Your task to perform on an android device: change text size in settings app Image 0: 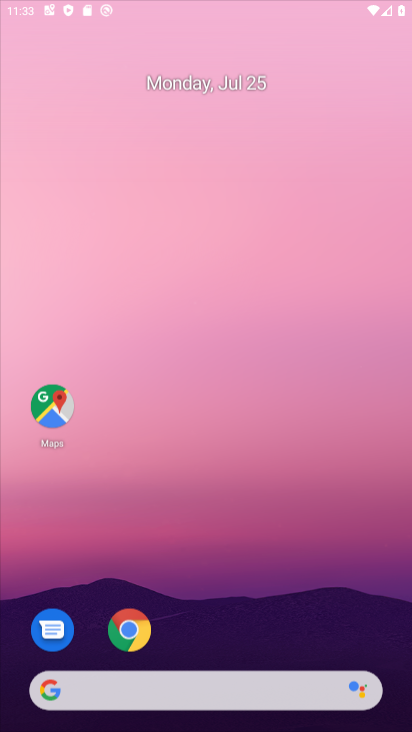
Step 0: press home button
Your task to perform on an android device: change text size in settings app Image 1: 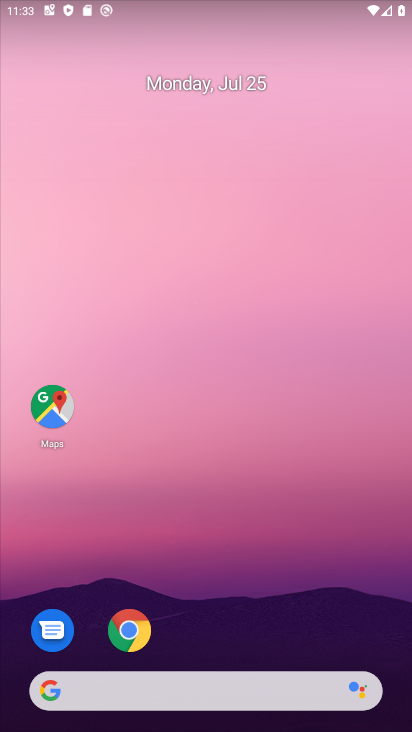
Step 1: drag from (328, 604) to (348, 124)
Your task to perform on an android device: change text size in settings app Image 2: 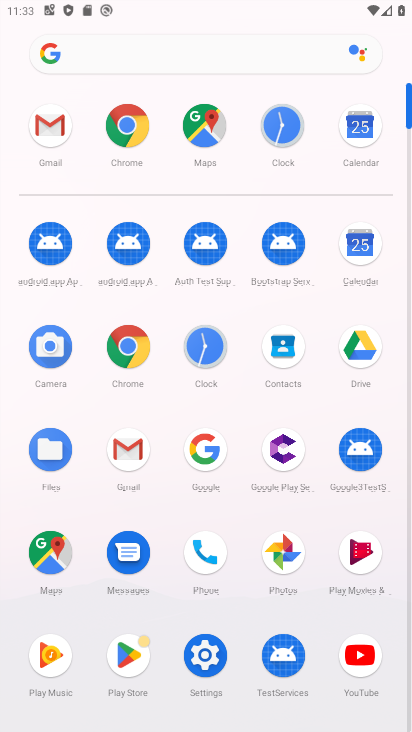
Step 2: click (199, 667)
Your task to perform on an android device: change text size in settings app Image 3: 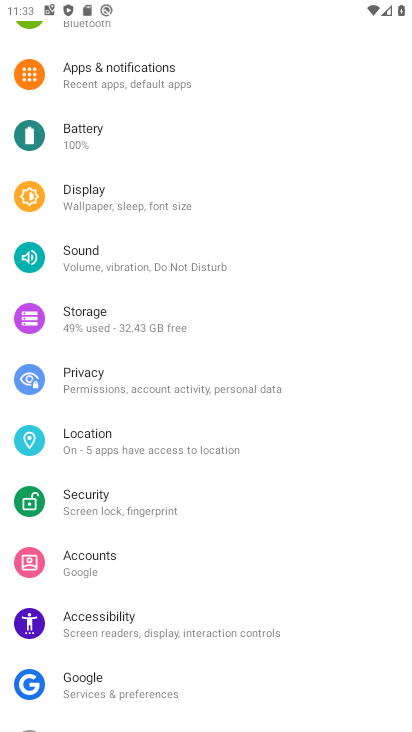
Step 3: drag from (323, 502) to (341, 420)
Your task to perform on an android device: change text size in settings app Image 4: 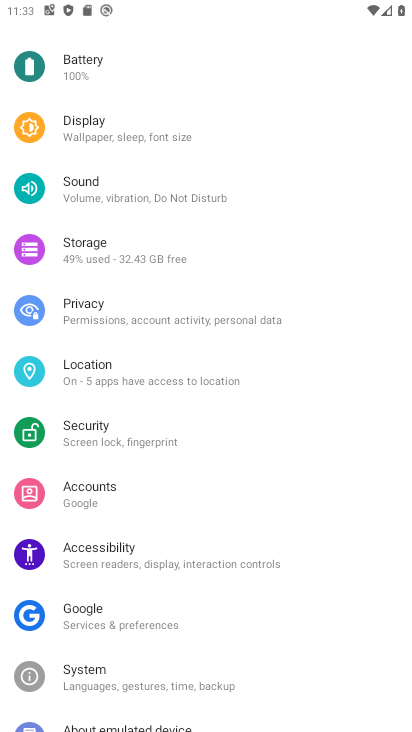
Step 4: drag from (346, 491) to (356, 378)
Your task to perform on an android device: change text size in settings app Image 5: 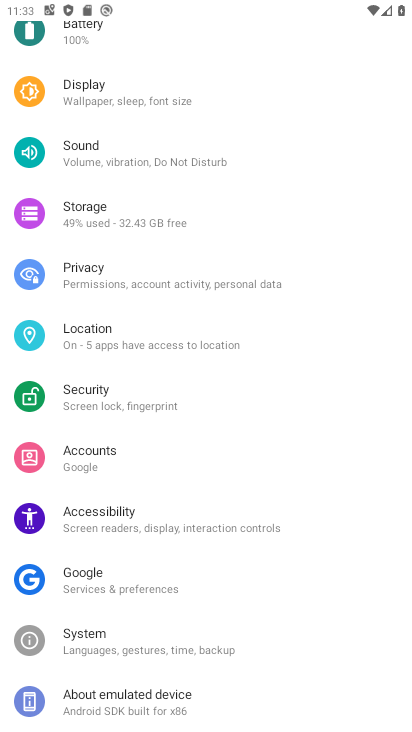
Step 5: drag from (347, 302) to (338, 373)
Your task to perform on an android device: change text size in settings app Image 6: 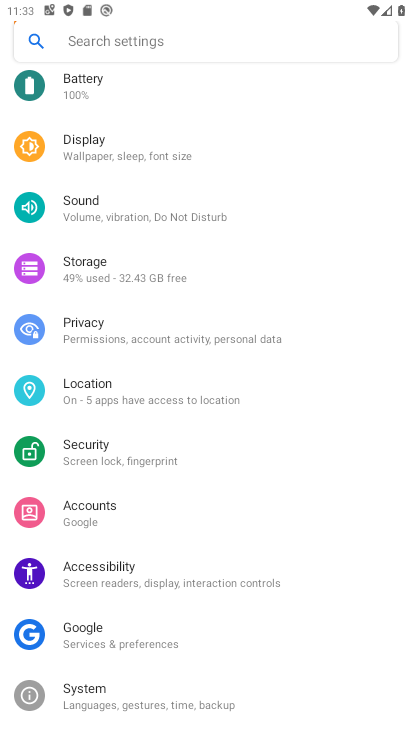
Step 6: drag from (332, 249) to (324, 351)
Your task to perform on an android device: change text size in settings app Image 7: 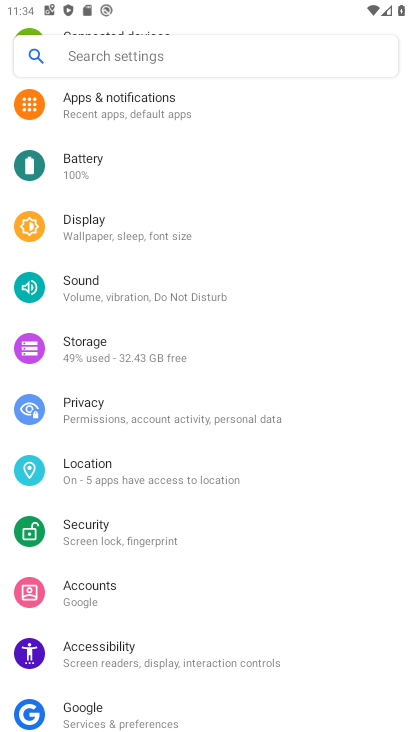
Step 7: drag from (325, 181) to (319, 353)
Your task to perform on an android device: change text size in settings app Image 8: 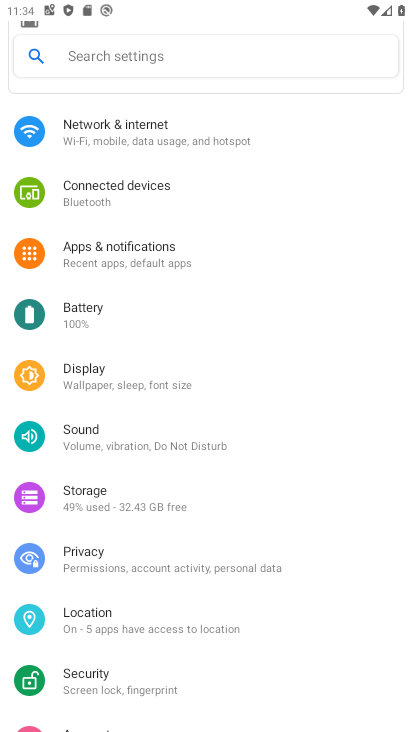
Step 8: drag from (333, 205) to (324, 451)
Your task to perform on an android device: change text size in settings app Image 9: 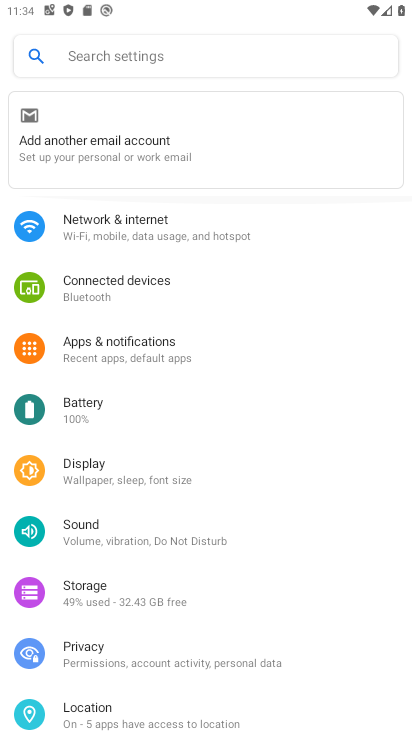
Step 9: click (263, 475)
Your task to perform on an android device: change text size in settings app Image 10: 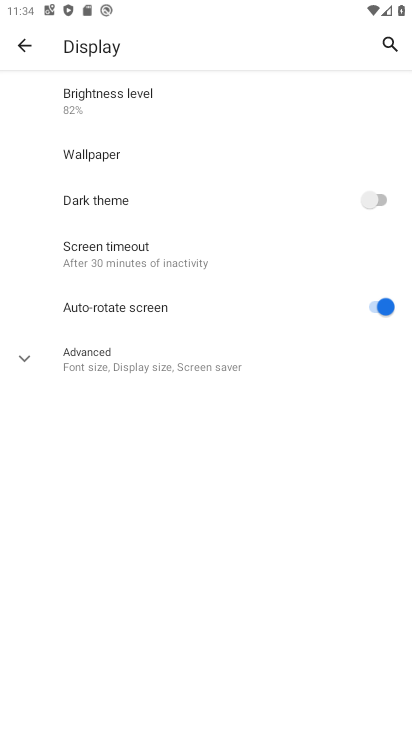
Step 10: click (232, 378)
Your task to perform on an android device: change text size in settings app Image 11: 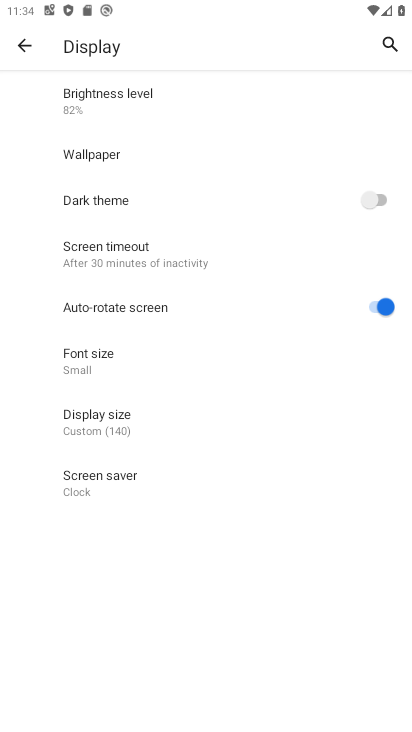
Step 11: click (192, 358)
Your task to perform on an android device: change text size in settings app Image 12: 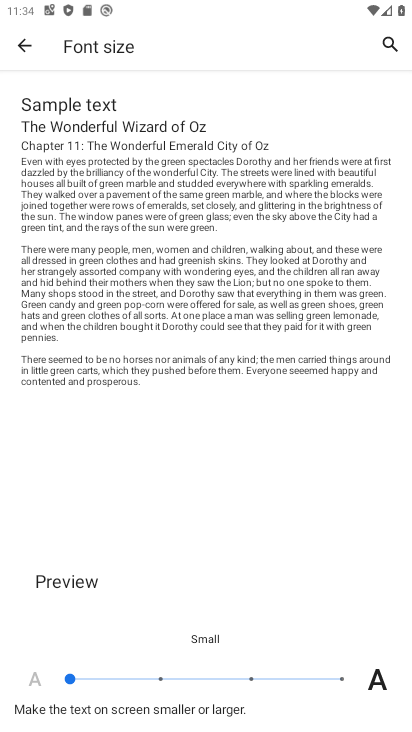
Step 12: click (345, 680)
Your task to perform on an android device: change text size in settings app Image 13: 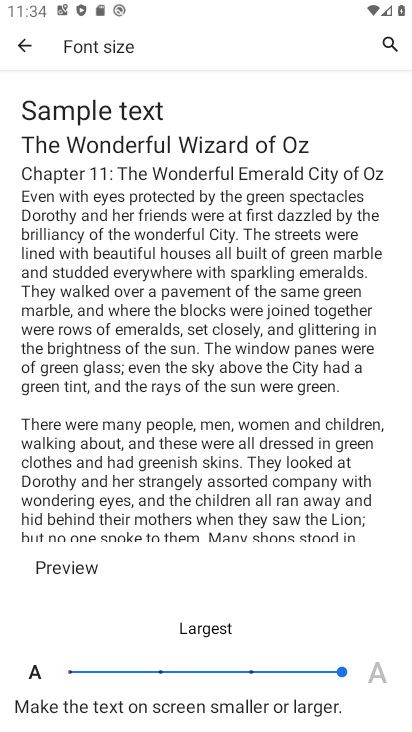
Step 13: task complete